Your task to perform on an android device: Go to location settings Image 0: 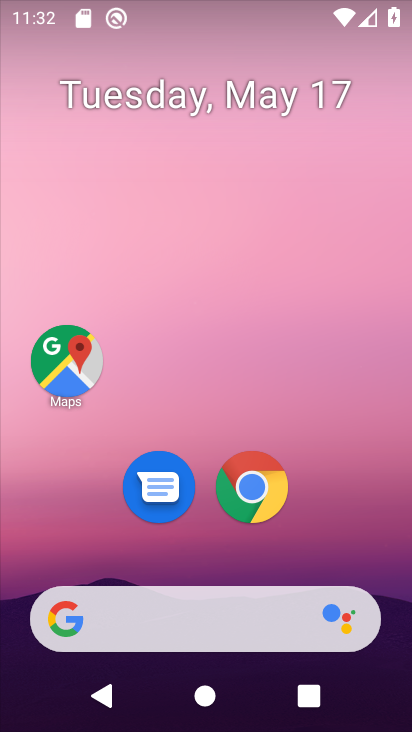
Step 0: drag from (393, 565) to (301, 64)
Your task to perform on an android device: Go to location settings Image 1: 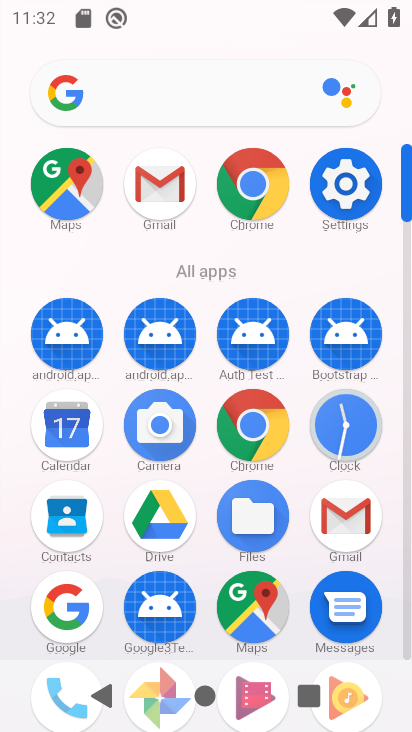
Step 1: click (353, 178)
Your task to perform on an android device: Go to location settings Image 2: 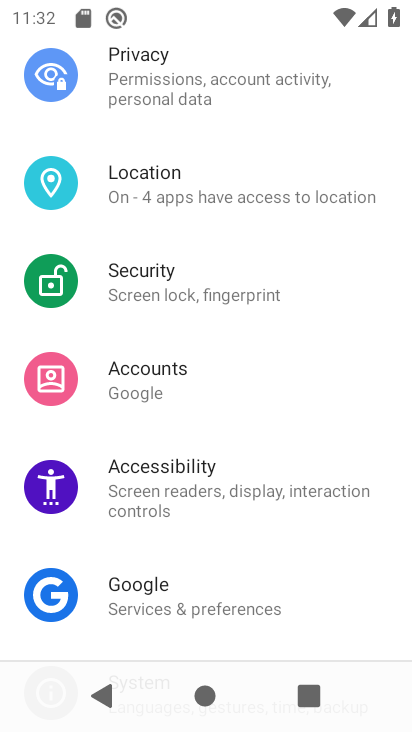
Step 2: click (248, 199)
Your task to perform on an android device: Go to location settings Image 3: 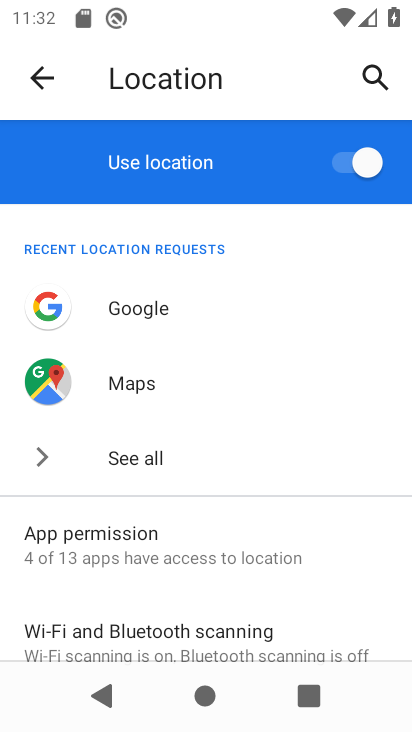
Step 3: task complete